Your task to perform on an android device: turn vacation reply on in the gmail app Image 0: 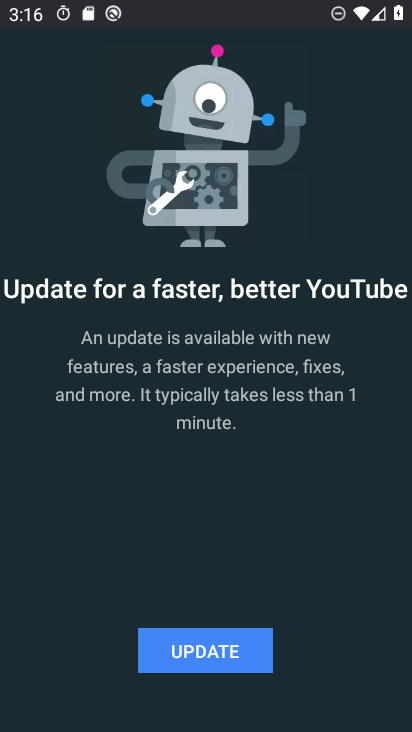
Step 0: press home button
Your task to perform on an android device: turn vacation reply on in the gmail app Image 1: 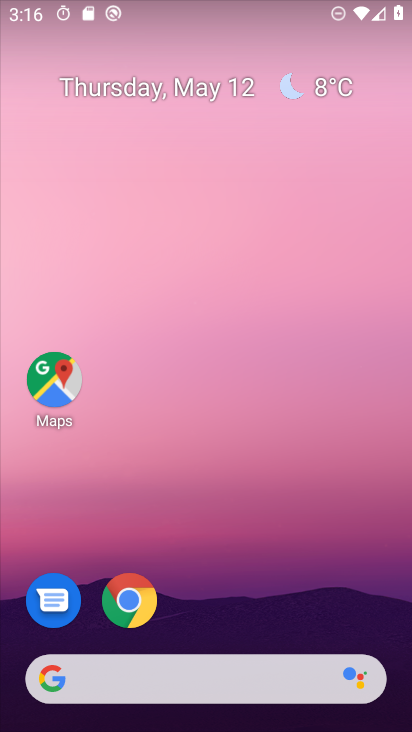
Step 1: drag from (193, 720) to (196, 249)
Your task to perform on an android device: turn vacation reply on in the gmail app Image 2: 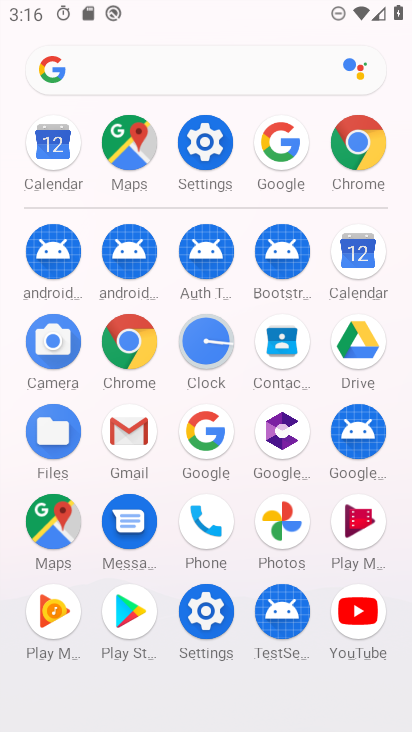
Step 2: click (131, 437)
Your task to perform on an android device: turn vacation reply on in the gmail app Image 3: 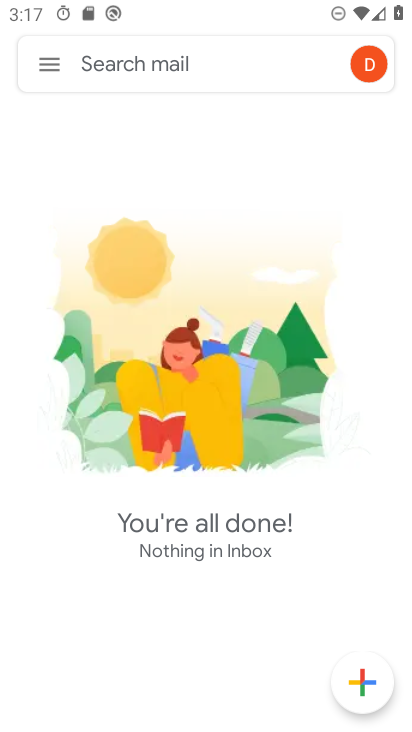
Step 3: click (50, 67)
Your task to perform on an android device: turn vacation reply on in the gmail app Image 4: 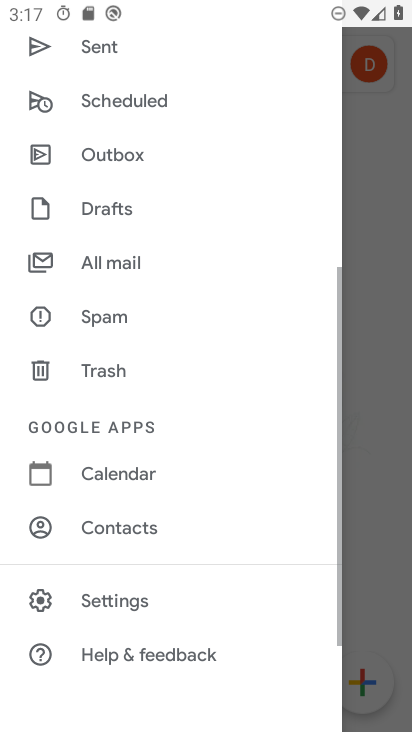
Step 4: click (106, 597)
Your task to perform on an android device: turn vacation reply on in the gmail app Image 5: 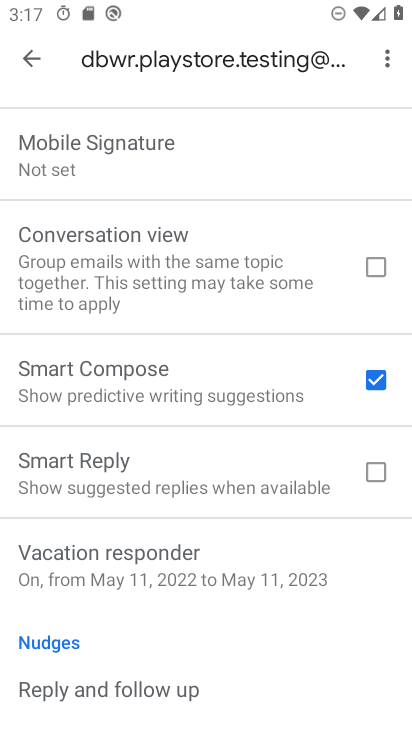
Step 5: click (127, 566)
Your task to perform on an android device: turn vacation reply on in the gmail app Image 6: 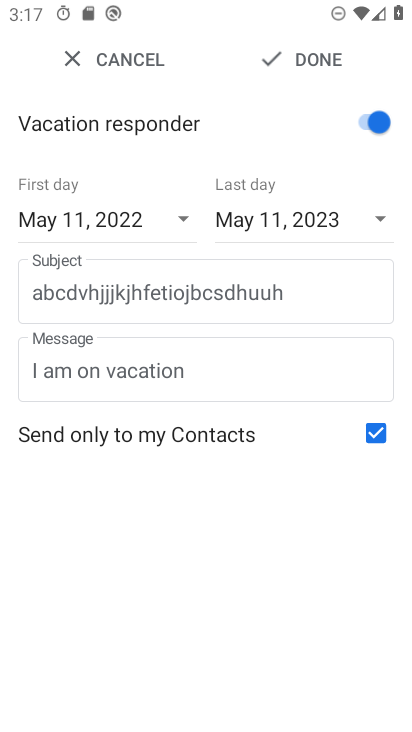
Step 6: task complete